Your task to perform on an android device: Open the calendar and show me this week's events? Image 0: 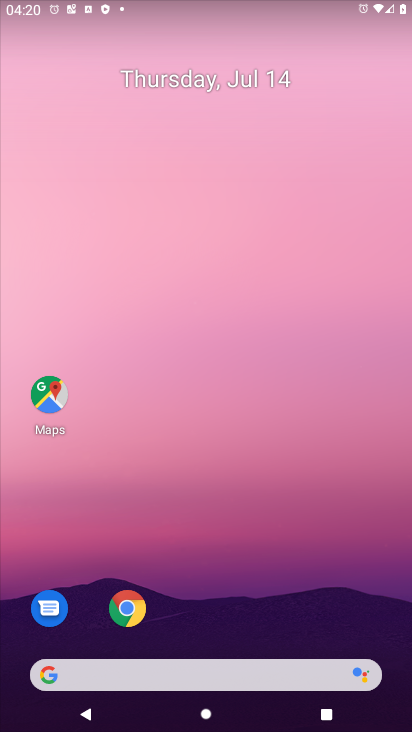
Step 0: drag from (381, 625) to (337, 146)
Your task to perform on an android device: Open the calendar and show me this week's events? Image 1: 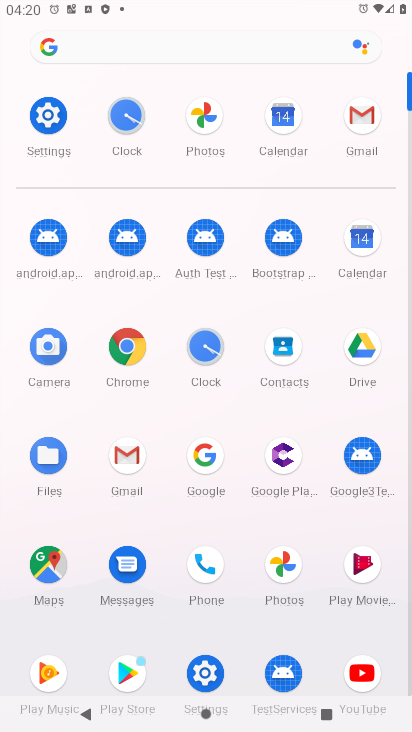
Step 1: click (362, 239)
Your task to perform on an android device: Open the calendar and show me this week's events? Image 2: 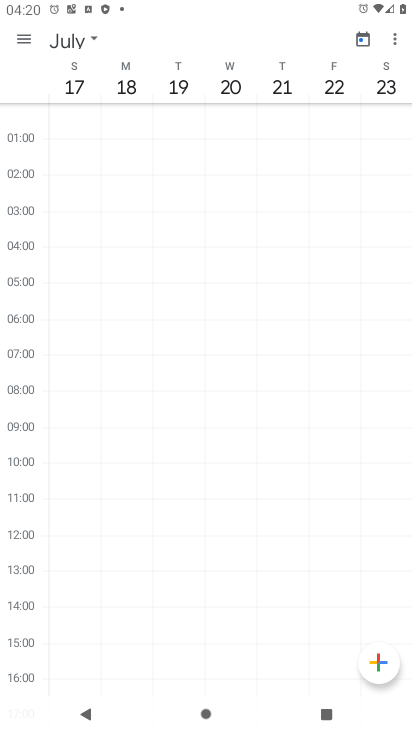
Step 2: click (30, 46)
Your task to perform on an android device: Open the calendar and show me this week's events? Image 3: 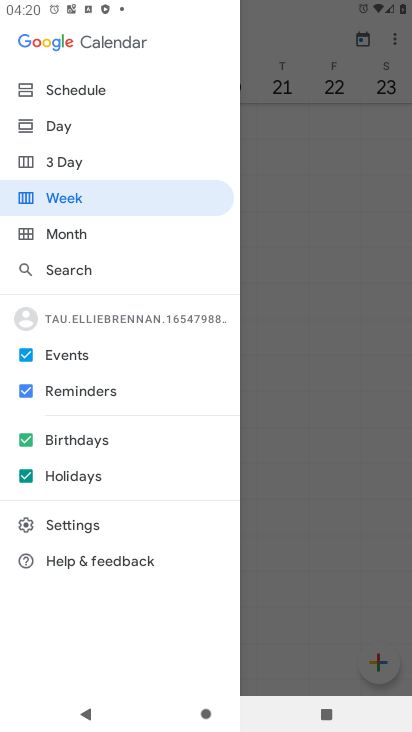
Step 3: click (280, 242)
Your task to perform on an android device: Open the calendar and show me this week's events? Image 4: 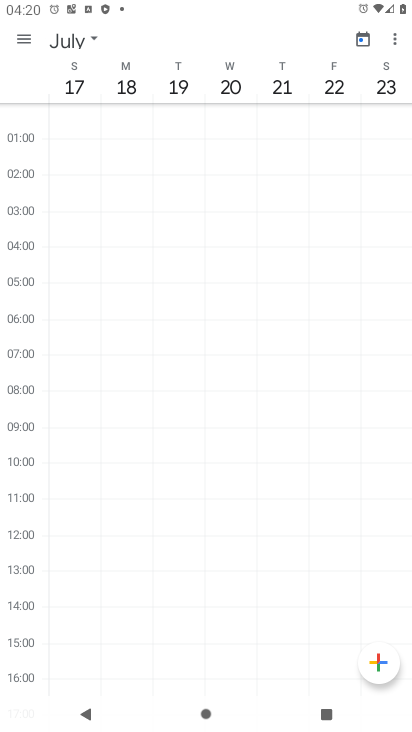
Step 4: click (92, 32)
Your task to perform on an android device: Open the calendar and show me this week's events? Image 5: 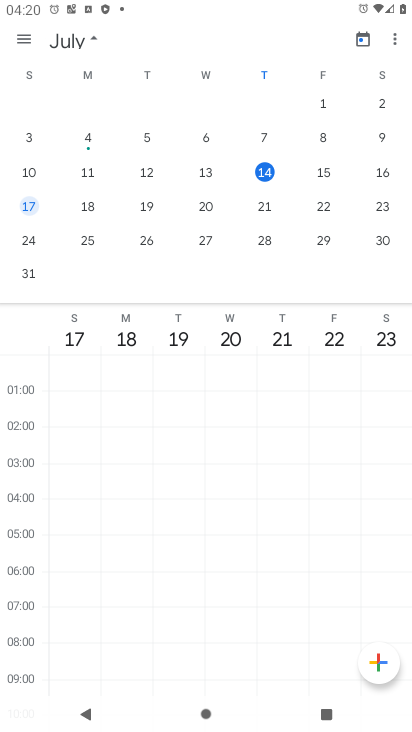
Step 5: click (265, 170)
Your task to perform on an android device: Open the calendar and show me this week's events? Image 6: 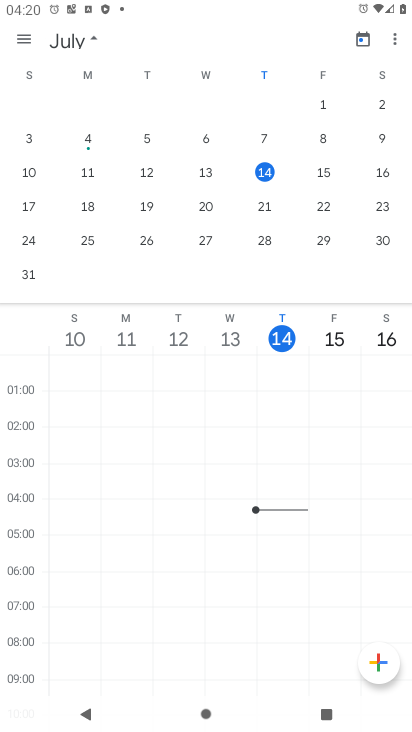
Step 6: task complete